Your task to perform on an android device: Open eBay Image 0: 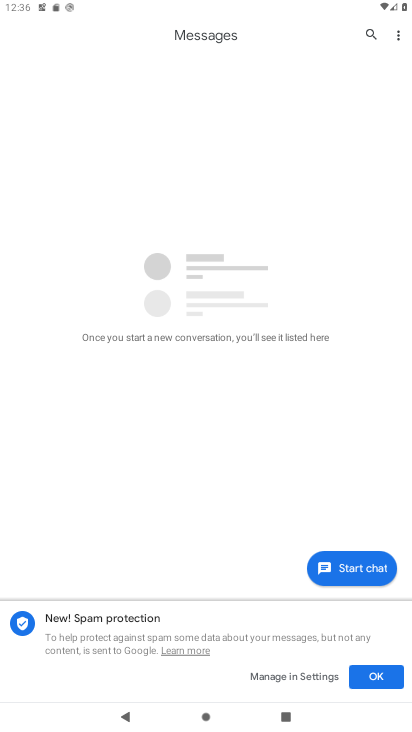
Step 0: press home button
Your task to perform on an android device: Open eBay Image 1: 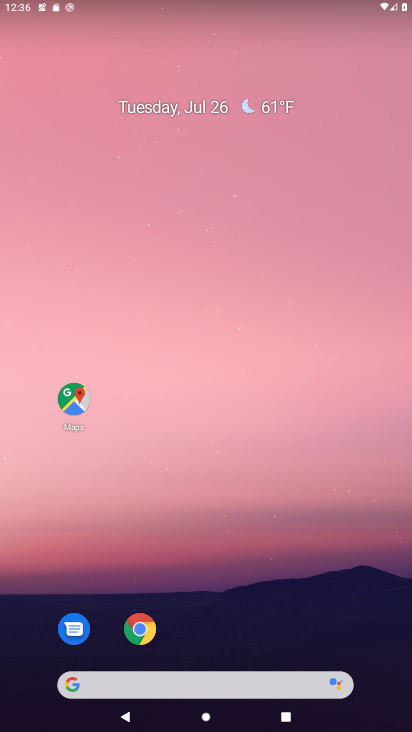
Step 1: click (148, 645)
Your task to perform on an android device: Open eBay Image 2: 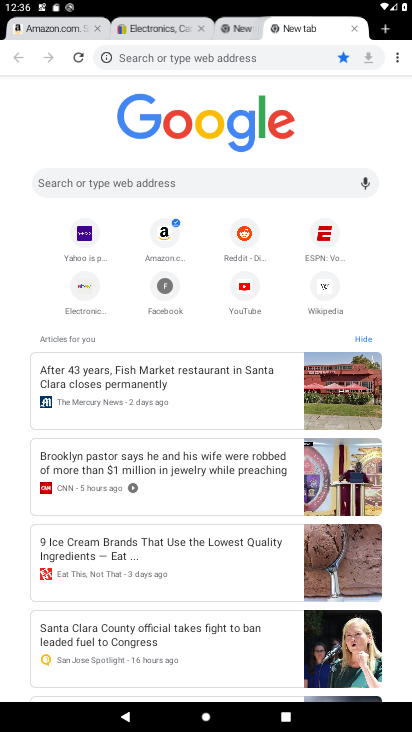
Step 2: click (93, 292)
Your task to perform on an android device: Open eBay Image 3: 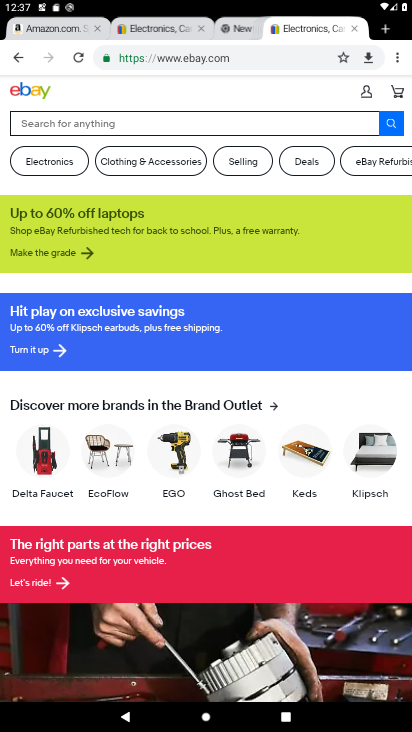
Step 3: task complete